Your task to perform on an android device: Go to Google maps Image 0: 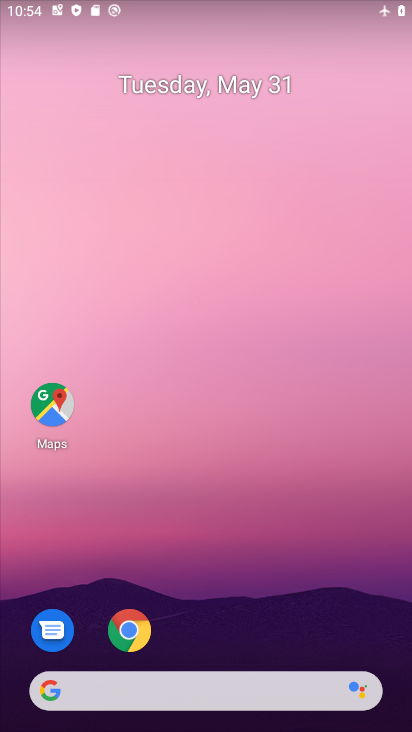
Step 0: drag from (213, 692) to (246, 144)
Your task to perform on an android device: Go to Google maps Image 1: 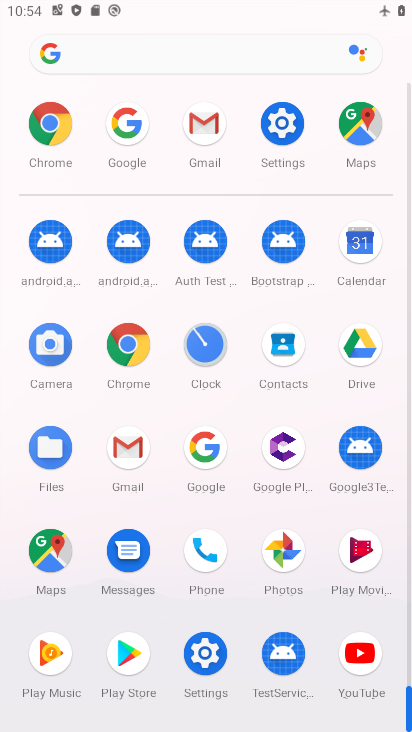
Step 1: click (54, 569)
Your task to perform on an android device: Go to Google maps Image 2: 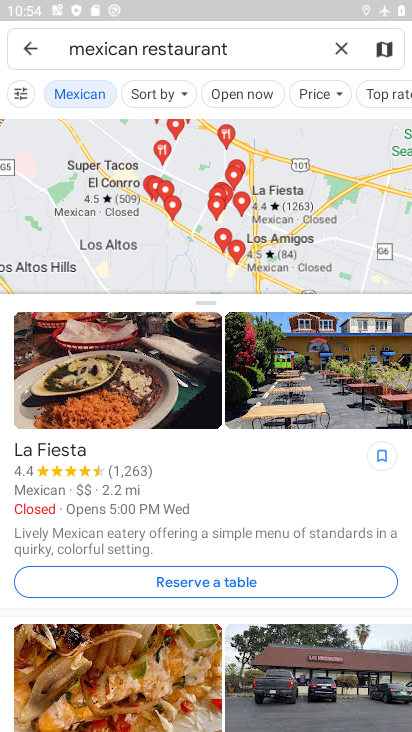
Step 2: task complete